Your task to perform on an android device: Clear the cart on newegg. Search for macbook pro 15 inch on newegg, select the first entry, and add it to the cart. Image 0: 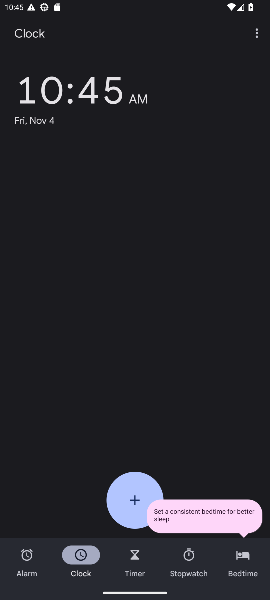
Step 0: press home button
Your task to perform on an android device: Clear the cart on newegg. Search for macbook pro 15 inch on newegg, select the first entry, and add it to the cart. Image 1: 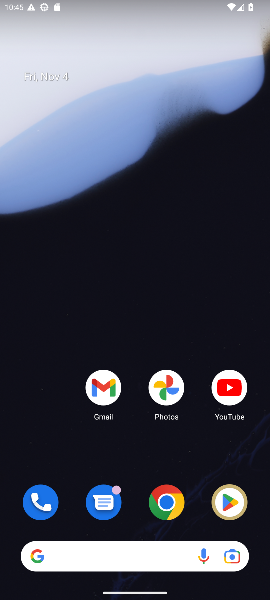
Step 1: drag from (157, 475) to (179, 33)
Your task to perform on an android device: Clear the cart on newegg. Search for macbook pro 15 inch on newegg, select the first entry, and add it to the cart. Image 2: 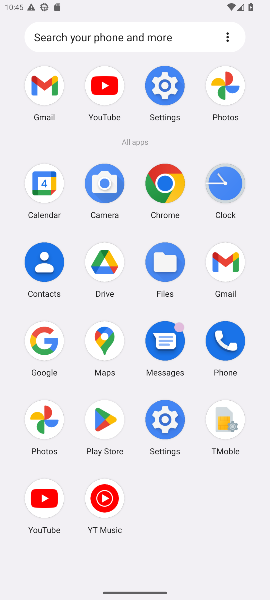
Step 2: click (166, 187)
Your task to perform on an android device: Clear the cart on newegg. Search for macbook pro 15 inch on newegg, select the first entry, and add it to the cart. Image 3: 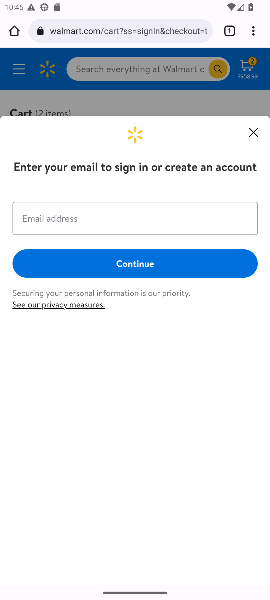
Step 3: click (176, 33)
Your task to perform on an android device: Clear the cart on newegg. Search for macbook pro 15 inch on newegg, select the first entry, and add it to the cart. Image 4: 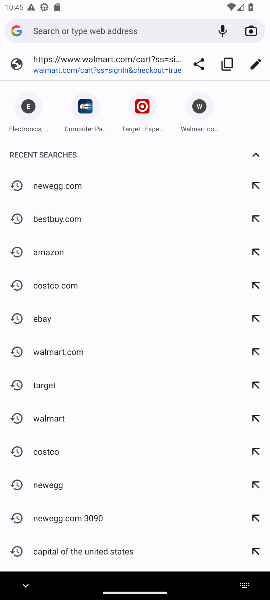
Step 4: type "newegg.com"
Your task to perform on an android device: Clear the cart on newegg. Search for macbook pro 15 inch on newegg, select the first entry, and add it to the cart. Image 5: 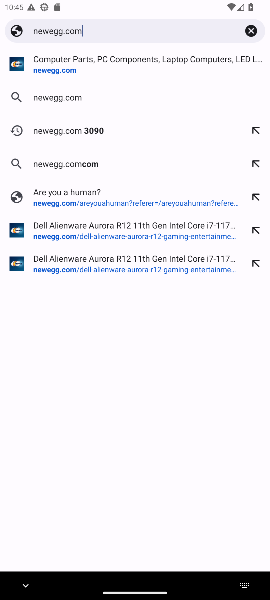
Step 5: press enter
Your task to perform on an android device: Clear the cart on newegg. Search for macbook pro 15 inch on newegg, select the first entry, and add it to the cart. Image 6: 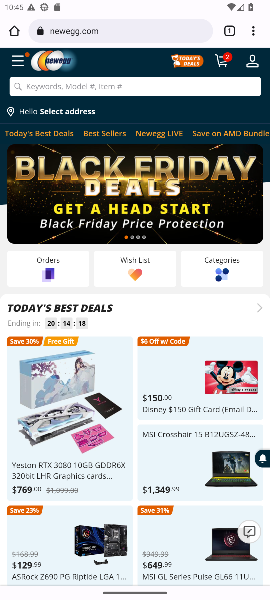
Step 6: click (155, 94)
Your task to perform on an android device: Clear the cart on newegg. Search for macbook pro 15 inch on newegg, select the first entry, and add it to the cart. Image 7: 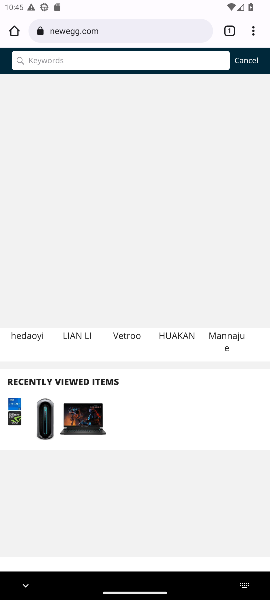
Step 7: type "macbook pro 15"
Your task to perform on an android device: Clear the cart on newegg. Search for macbook pro 15 inch on newegg, select the first entry, and add it to the cart. Image 8: 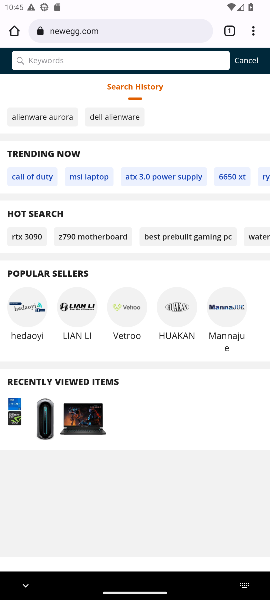
Step 8: click (238, 59)
Your task to perform on an android device: Clear the cart on newegg. Search for macbook pro 15 inch on newegg, select the first entry, and add it to the cart. Image 9: 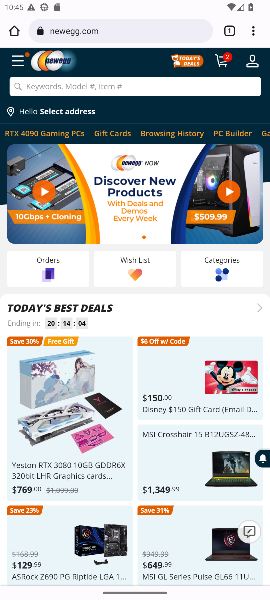
Step 9: click (223, 60)
Your task to perform on an android device: Clear the cart on newegg. Search for macbook pro 15 inch on newegg, select the first entry, and add it to the cart. Image 10: 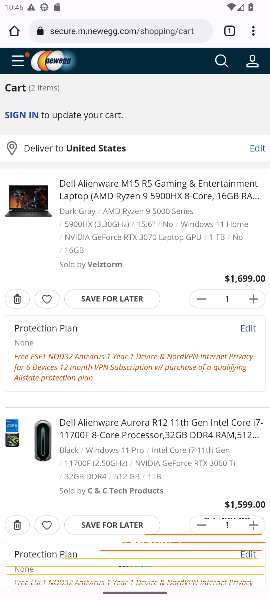
Step 10: click (18, 300)
Your task to perform on an android device: Clear the cart on newegg. Search for macbook pro 15 inch on newegg, select the first entry, and add it to the cart. Image 11: 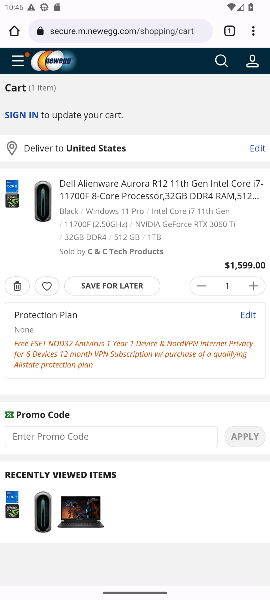
Step 11: click (14, 287)
Your task to perform on an android device: Clear the cart on newegg. Search for macbook pro 15 inch on newegg, select the first entry, and add it to the cart. Image 12: 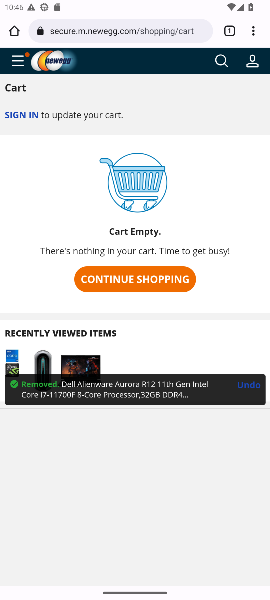
Step 12: click (219, 55)
Your task to perform on an android device: Clear the cart on newegg. Search for macbook pro 15 inch on newegg, select the first entry, and add it to the cart. Image 13: 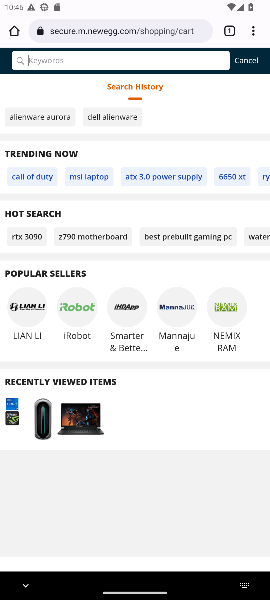
Step 13: click (146, 60)
Your task to perform on an android device: Clear the cart on newegg. Search for macbook pro 15 inch on newegg, select the first entry, and add it to the cart. Image 14: 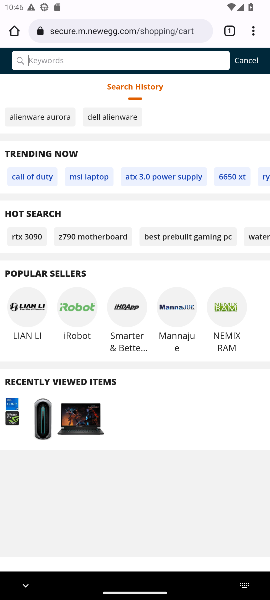
Step 14: type "macbook pro 15"
Your task to perform on an android device: Clear the cart on newegg. Search for macbook pro 15 inch on newegg, select the first entry, and add it to the cart. Image 15: 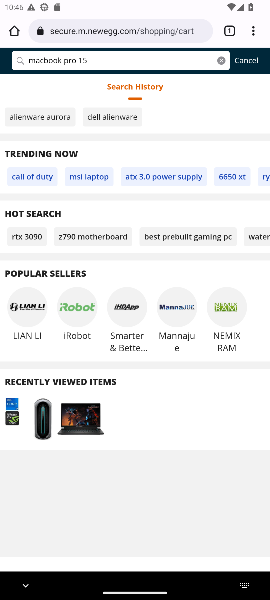
Step 15: press enter
Your task to perform on an android device: Clear the cart on newegg. Search for macbook pro 15 inch on newegg, select the first entry, and add it to the cart. Image 16: 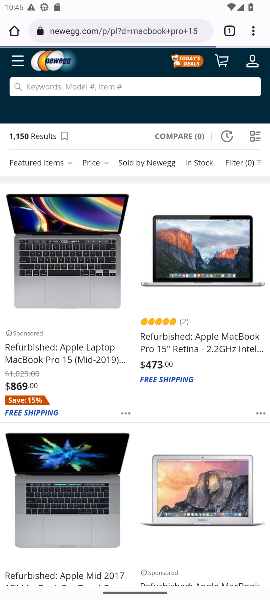
Step 16: click (195, 280)
Your task to perform on an android device: Clear the cart on newegg. Search for macbook pro 15 inch on newegg, select the first entry, and add it to the cart. Image 17: 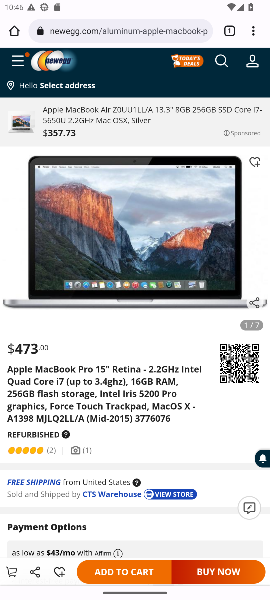
Step 17: click (137, 576)
Your task to perform on an android device: Clear the cart on newegg. Search for macbook pro 15 inch on newegg, select the first entry, and add it to the cart. Image 18: 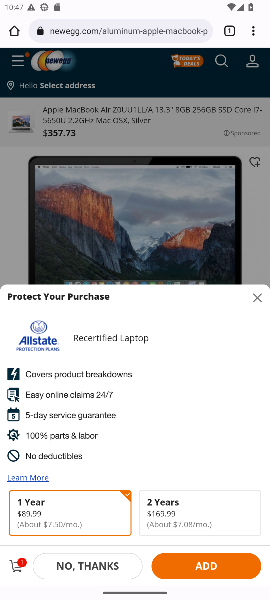
Step 18: task complete